Your task to perform on an android device: Go to wifi settings Image 0: 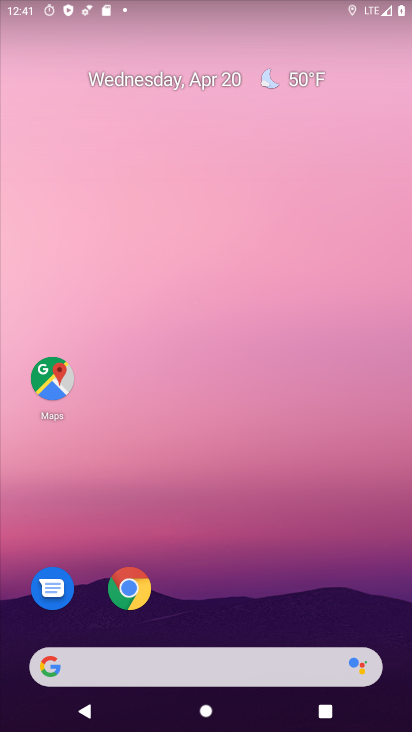
Step 0: drag from (229, 618) to (291, 25)
Your task to perform on an android device: Go to wifi settings Image 1: 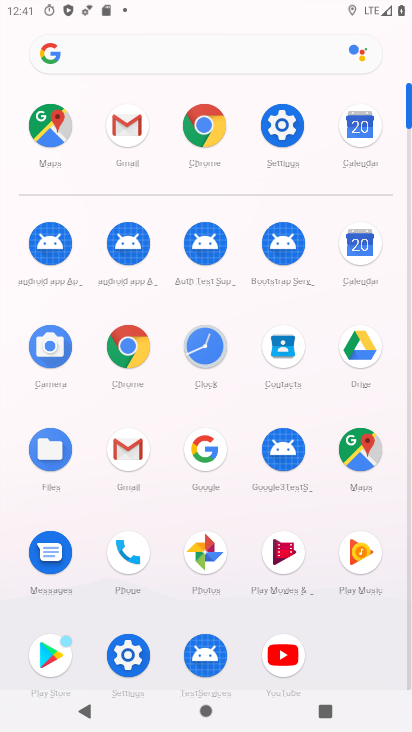
Step 1: click (279, 129)
Your task to perform on an android device: Go to wifi settings Image 2: 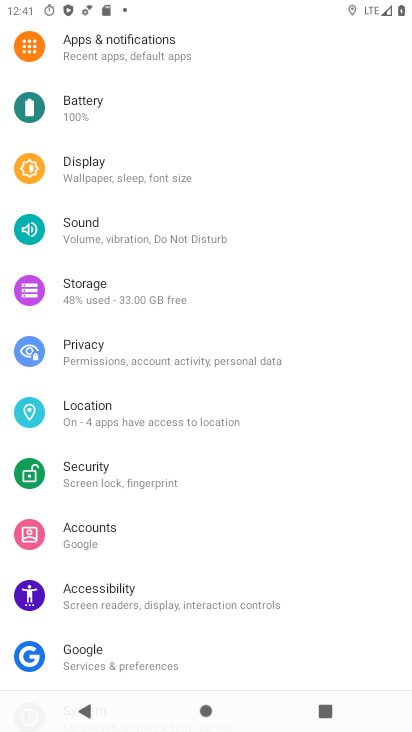
Step 2: drag from (224, 103) to (192, 584)
Your task to perform on an android device: Go to wifi settings Image 3: 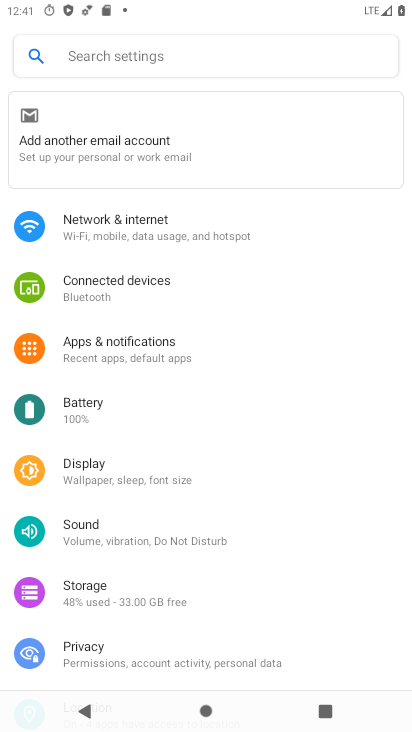
Step 3: click (125, 228)
Your task to perform on an android device: Go to wifi settings Image 4: 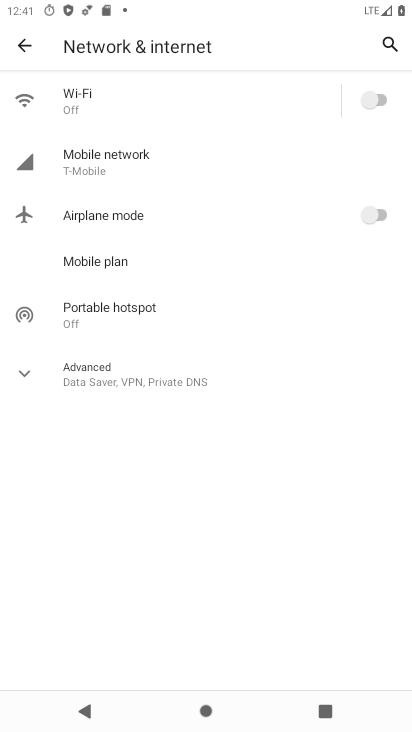
Step 4: click (107, 103)
Your task to perform on an android device: Go to wifi settings Image 5: 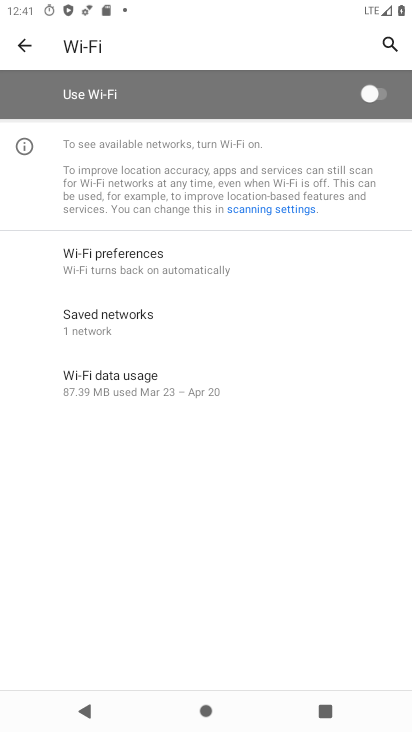
Step 5: task complete